Your task to perform on an android device: delete location history Image 0: 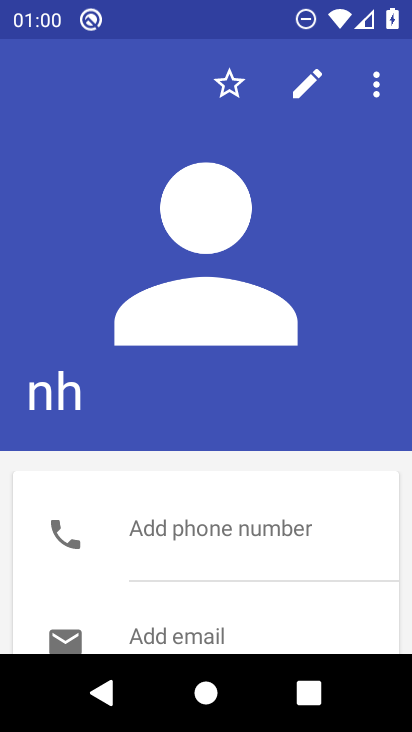
Step 0: drag from (237, 591) to (285, 309)
Your task to perform on an android device: delete location history Image 1: 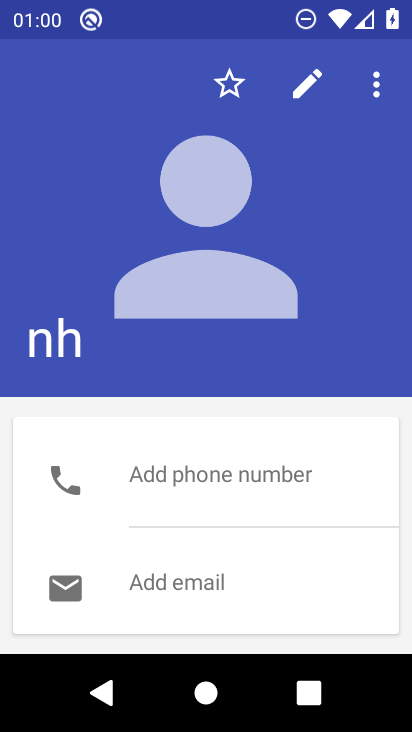
Step 1: press home button
Your task to perform on an android device: delete location history Image 2: 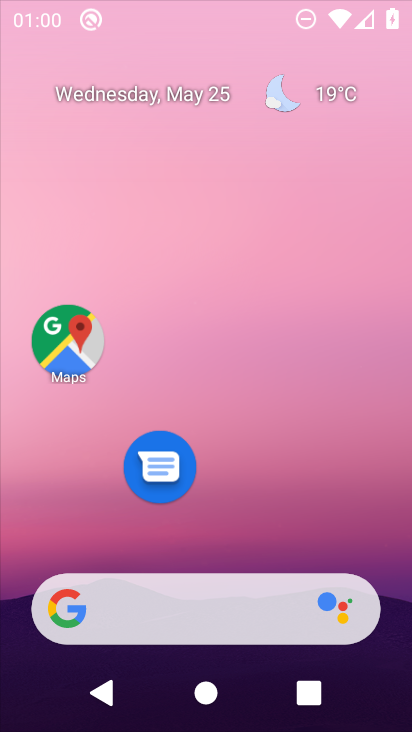
Step 2: drag from (205, 572) to (233, 40)
Your task to perform on an android device: delete location history Image 3: 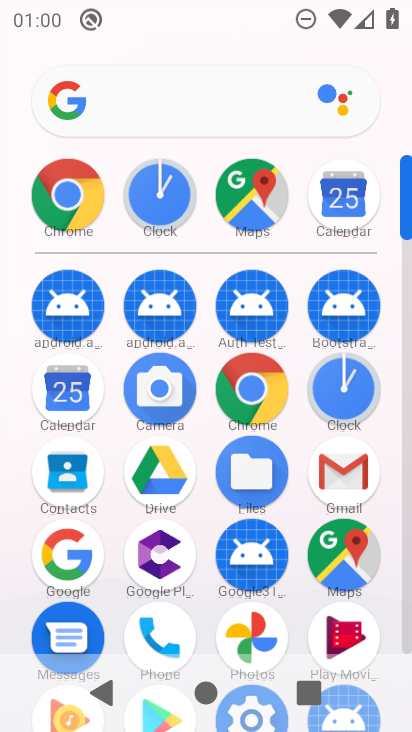
Step 3: drag from (212, 614) to (198, 294)
Your task to perform on an android device: delete location history Image 4: 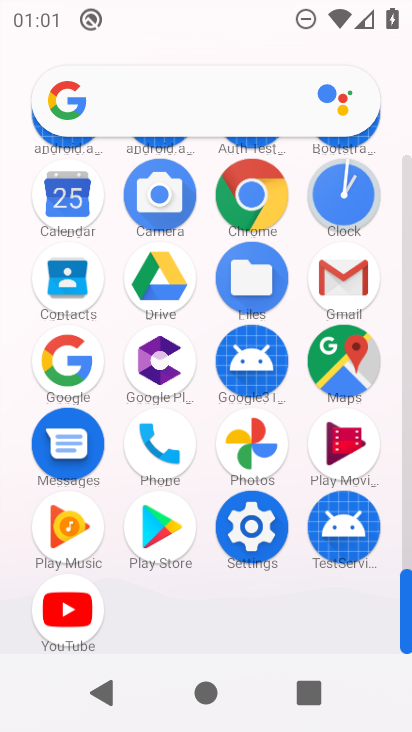
Step 4: click (229, 524)
Your task to perform on an android device: delete location history Image 5: 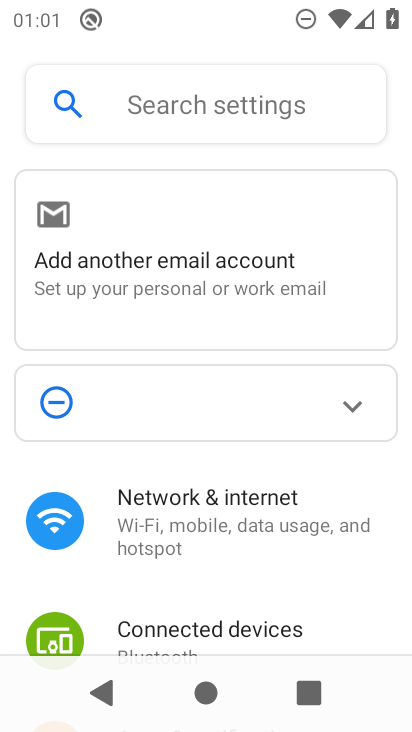
Step 5: drag from (234, 615) to (407, 6)
Your task to perform on an android device: delete location history Image 6: 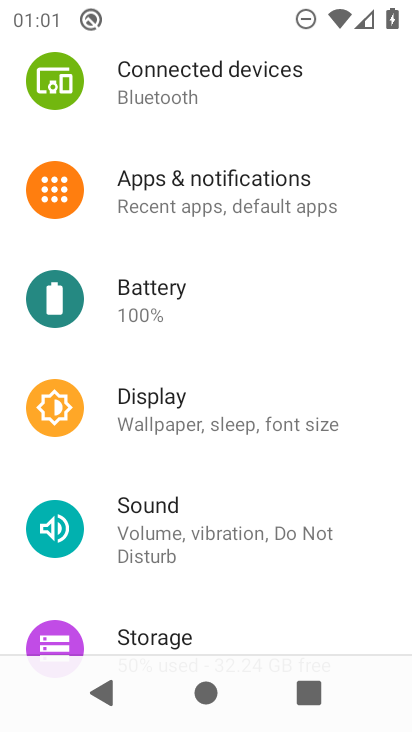
Step 6: drag from (206, 561) to (295, 170)
Your task to perform on an android device: delete location history Image 7: 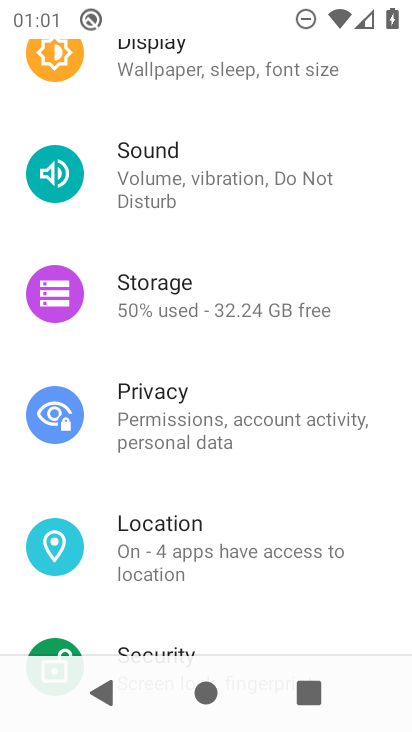
Step 7: click (178, 524)
Your task to perform on an android device: delete location history Image 8: 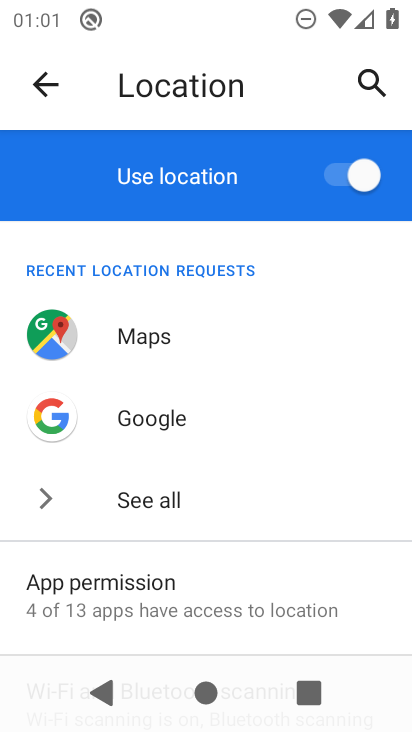
Step 8: click (262, 99)
Your task to perform on an android device: delete location history Image 9: 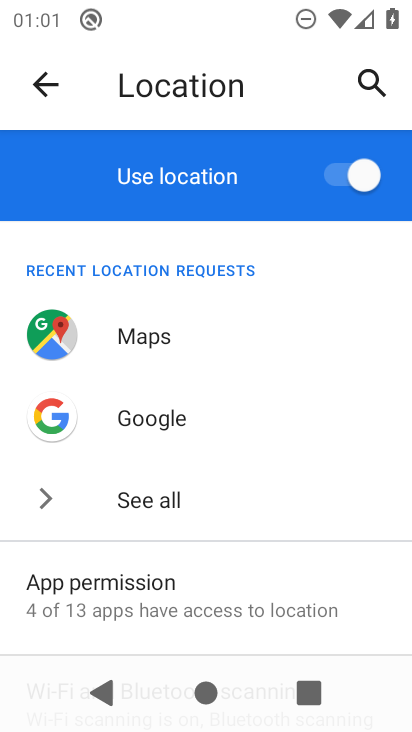
Step 9: drag from (173, 584) to (307, 69)
Your task to perform on an android device: delete location history Image 10: 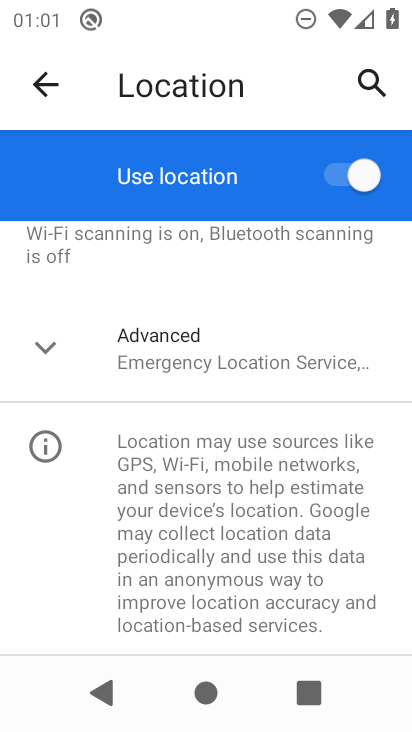
Step 10: drag from (203, 607) to (225, 294)
Your task to perform on an android device: delete location history Image 11: 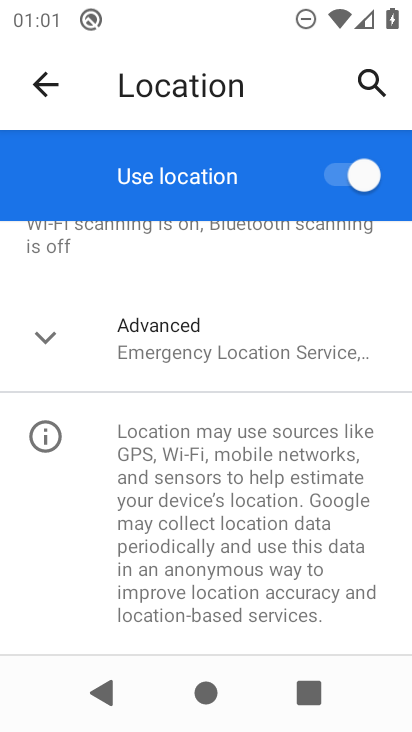
Step 11: click (164, 345)
Your task to perform on an android device: delete location history Image 12: 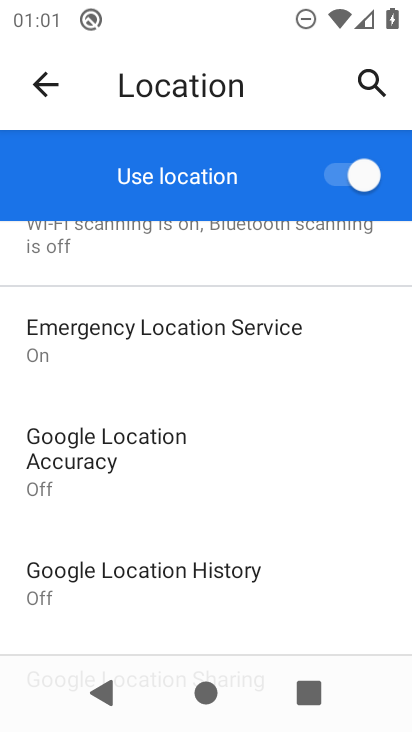
Step 12: drag from (217, 554) to (280, 313)
Your task to perform on an android device: delete location history Image 13: 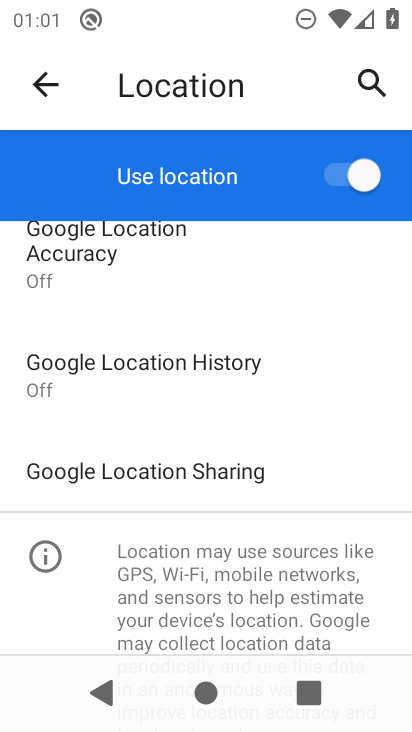
Step 13: click (151, 381)
Your task to perform on an android device: delete location history Image 14: 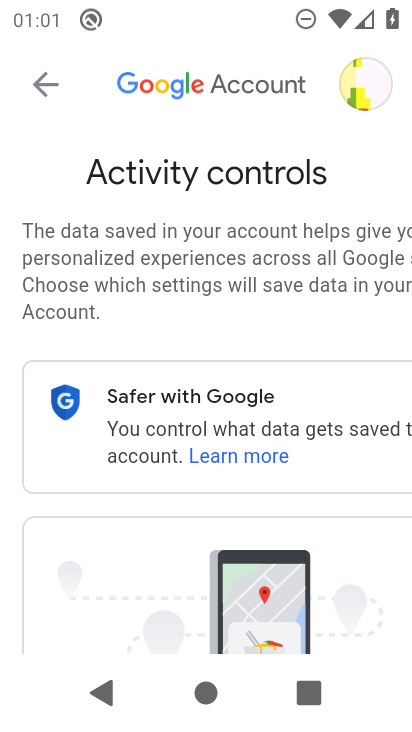
Step 14: drag from (271, 569) to (295, 291)
Your task to perform on an android device: delete location history Image 15: 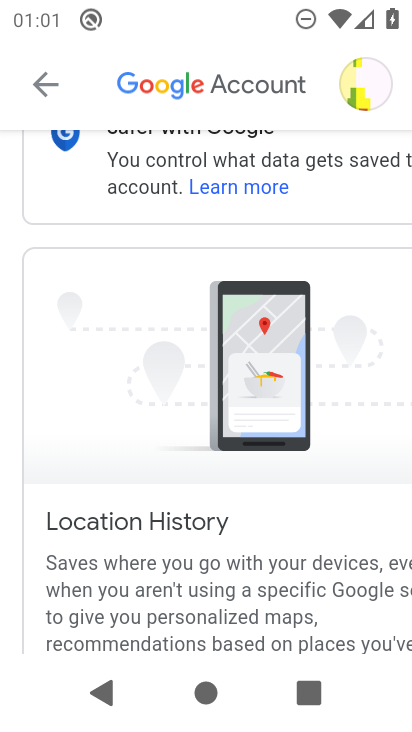
Step 15: drag from (228, 278) to (286, 133)
Your task to perform on an android device: delete location history Image 16: 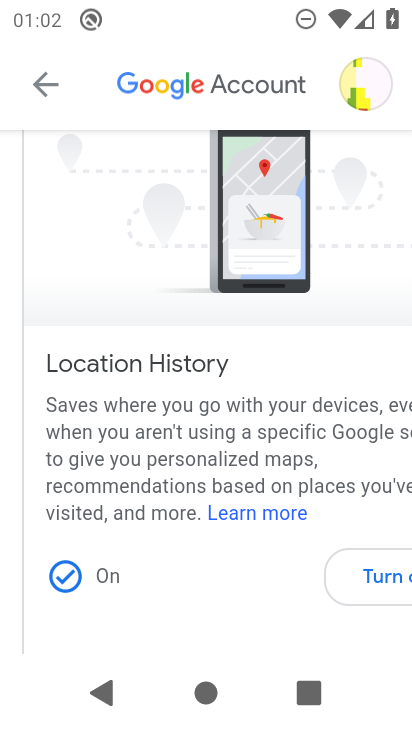
Step 16: drag from (253, 558) to (211, 304)
Your task to perform on an android device: delete location history Image 17: 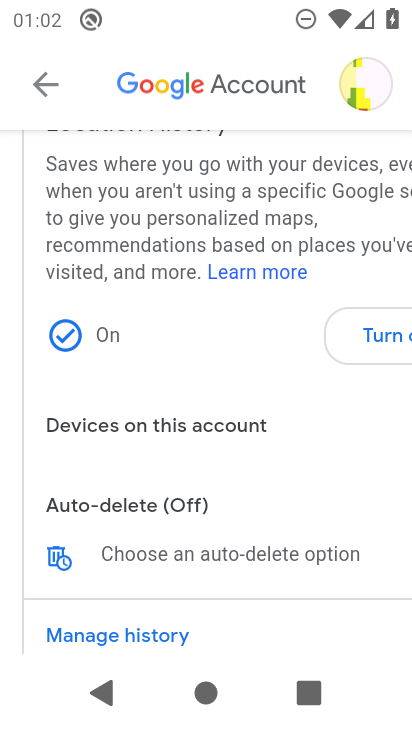
Step 17: click (66, 554)
Your task to perform on an android device: delete location history Image 18: 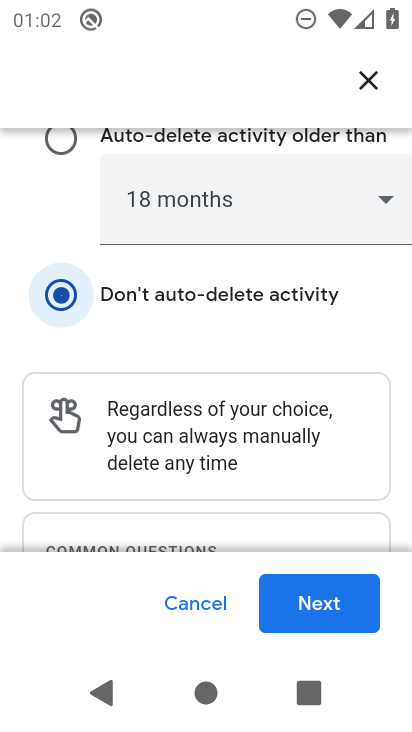
Step 18: click (298, 613)
Your task to perform on an android device: delete location history Image 19: 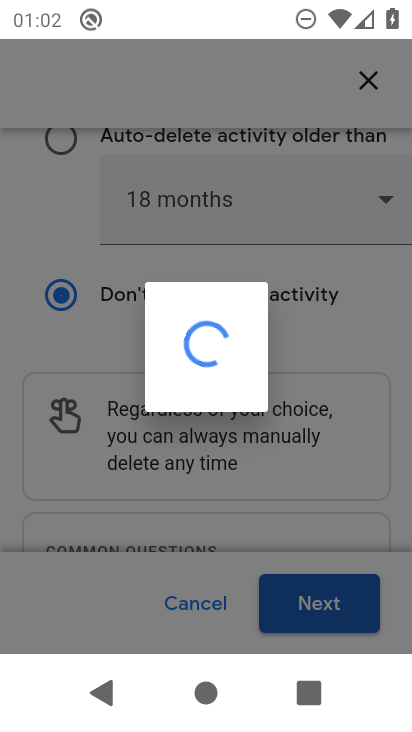
Step 19: click (308, 598)
Your task to perform on an android device: delete location history Image 20: 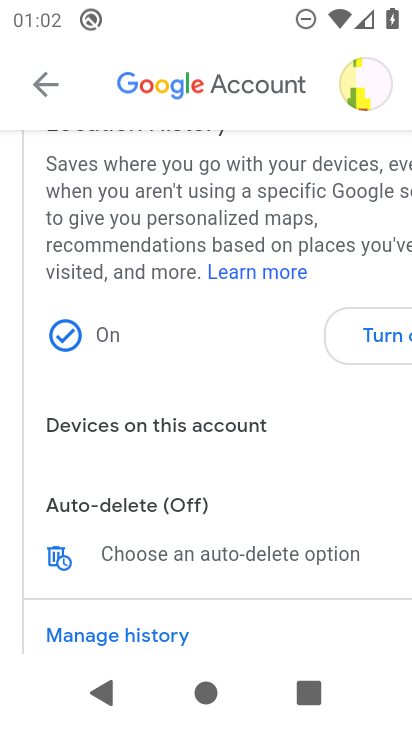
Step 20: task complete